Your task to perform on an android device: Do I have any events today? Image 0: 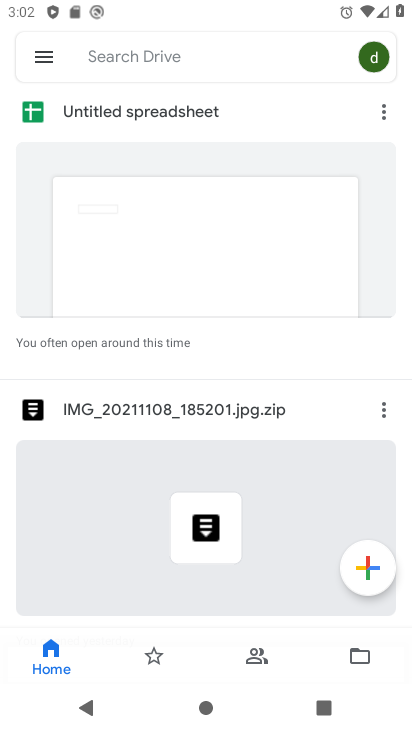
Step 0: press back button
Your task to perform on an android device: Do I have any events today? Image 1: 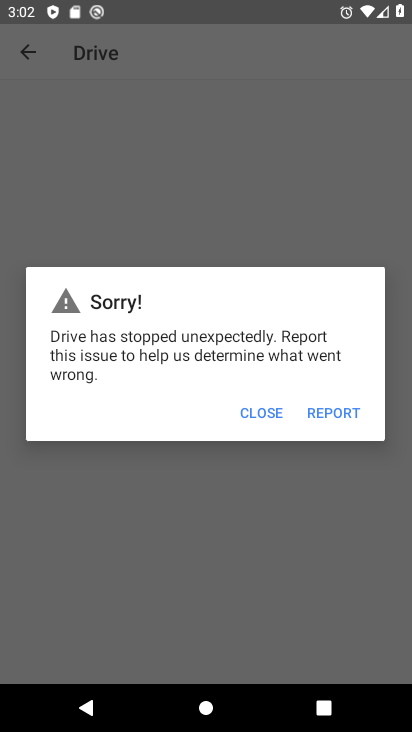
Step 1: click (248, 405)
Your task to perform on an android device: Do I have any events today? Image 2: 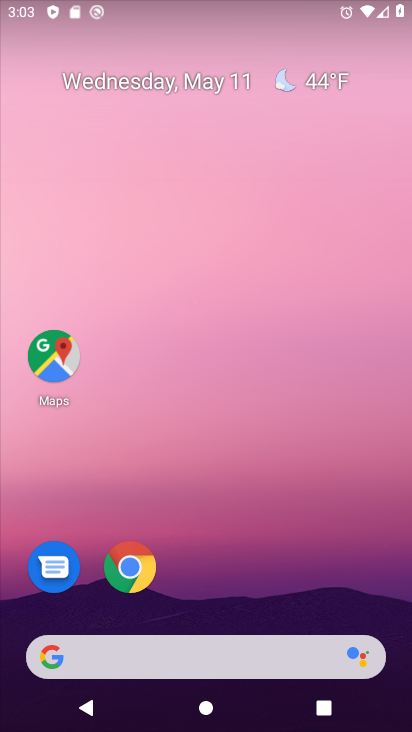
Step 2: drag from (230, 535) to (155, 35)
Your task to perform on an android device: Do I have any events today? Image 3: 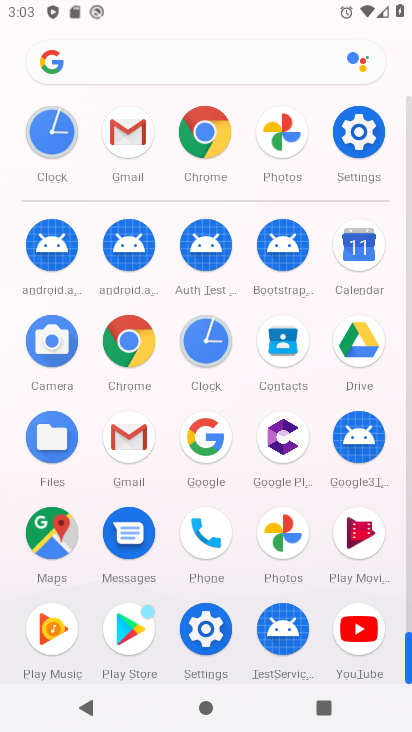
Step 3: drag from (14, 525) to (17, 209)
Your task to perform on an android device: Do I have any events today? Image 4: 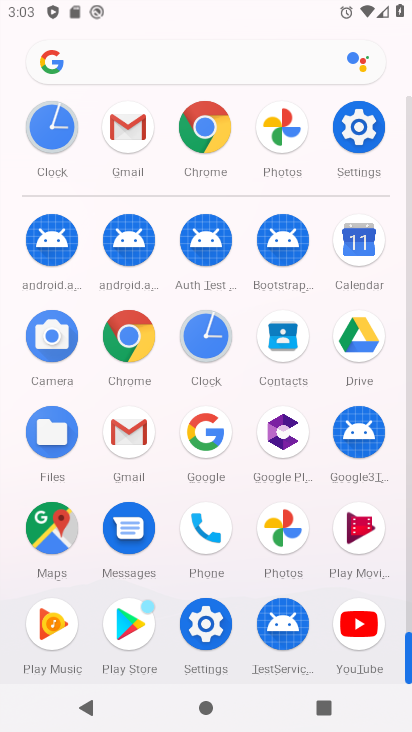
Step 4: drag from (3, 599) to (11, 286)
Your task to perform on an android device: Do I have any events today? Image 5: 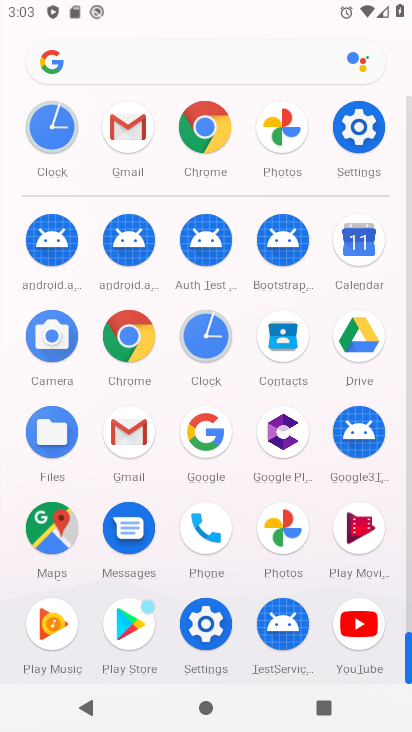
Step 5: click (360, 234)
Your task to perform on an android device: Do I have any events today? Image 6: 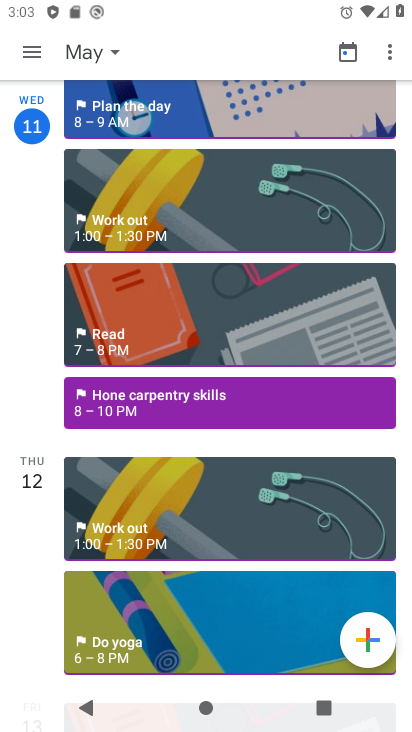
Step 6: task complete